Your task to perform on an android device: Is it going to rain this weekend? Image 0: 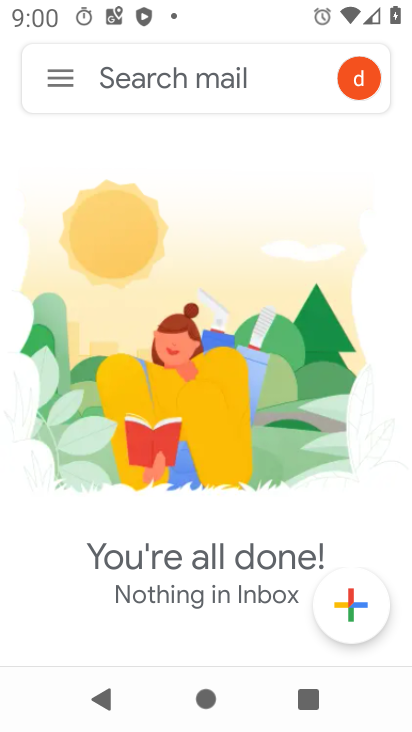
Step 0: press home button
Your task to perform on an android device: Is it going to rain this weekend? Image 1: 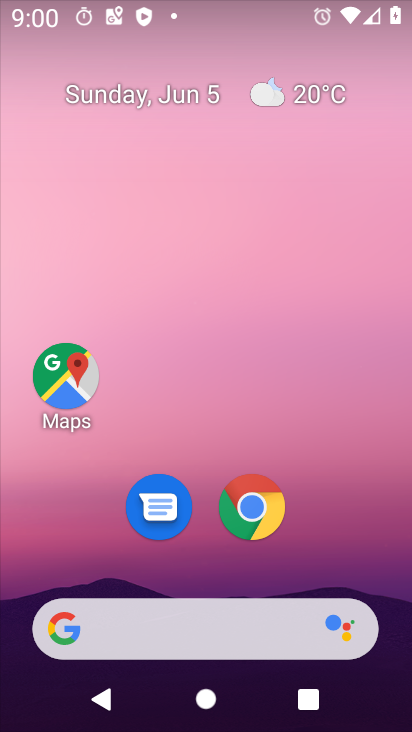
Step 1: drag from (339, 557) to (210, 1)
Your task to perform on an android device: Is it going to rain this weekend? Image 2: 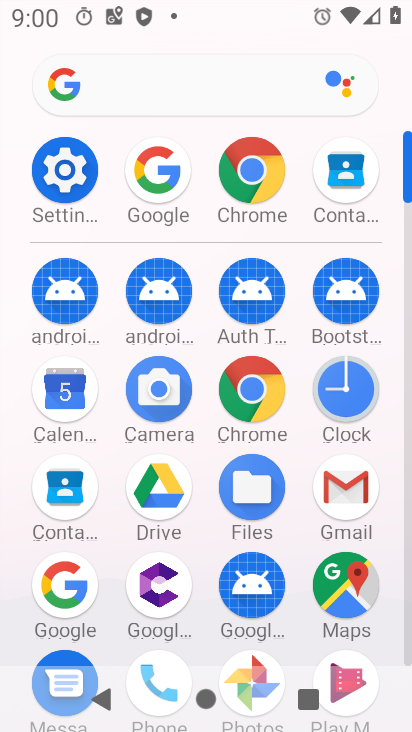
Step 2: drag from (18, 563) to (7, 204)
Your task to perform on an android device: Is it going to rain this weekend? Image 3: 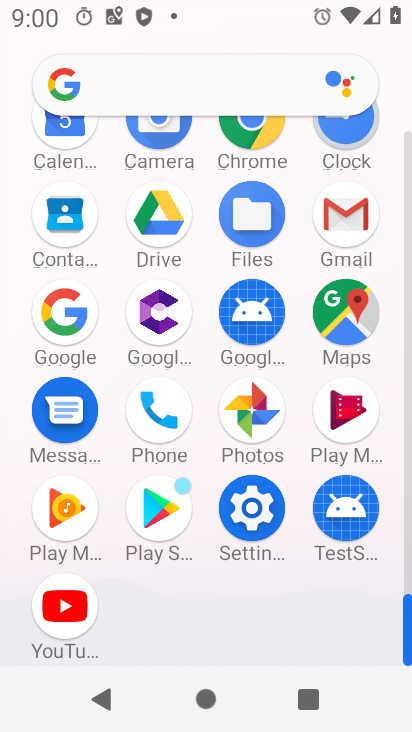
Step 3: drag from (18, 593) to (1, 195)
Your task to perform on an android device: Is it going to rain this weekend? Image 4: 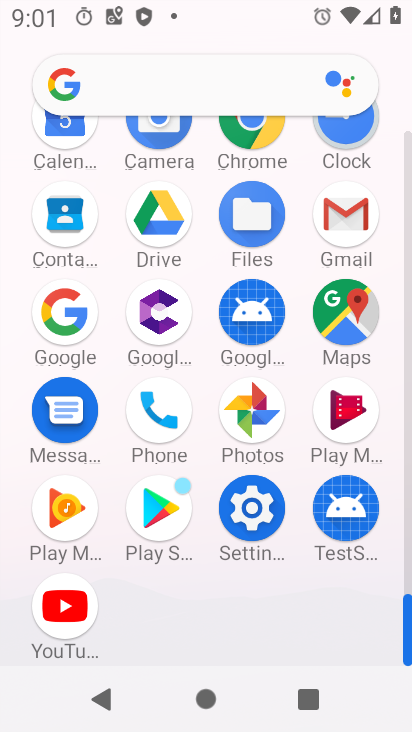
Step 4: drag from (9, 155) to (2, 375)
Your task to perform on an android device: Is it going to rain this weekend? Image 5: 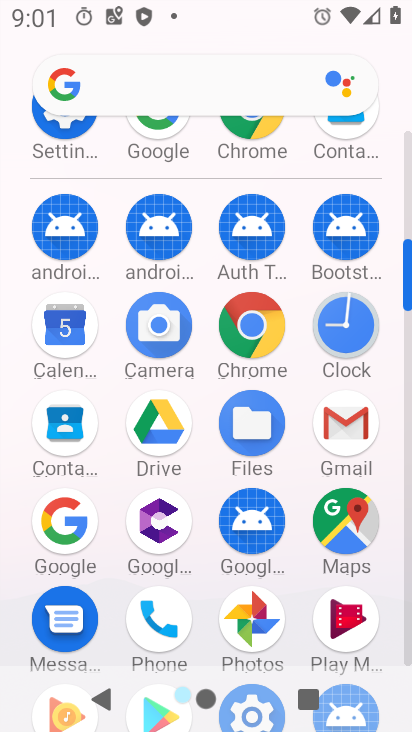
Step 5: click (252, 321)
Your task to perform on an android device: Is it going to rain this weekend? Image 6: 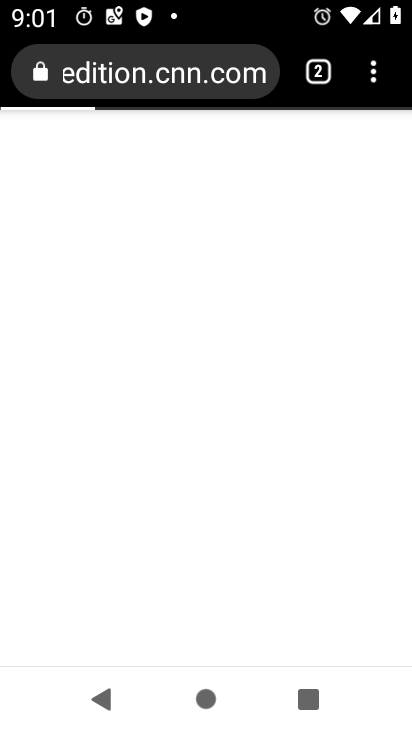
Step 6: click (143, 71)
Your task to perform on an android device: Is it going to rain this weekend? Image 7: 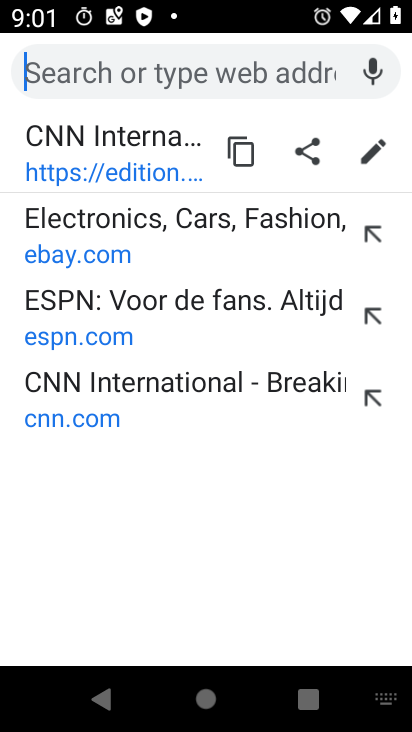
Step 7: type "Is it going to rain this weekend?"
Your task to perform on an android device: Is it going to rain this weekend? Image 8: 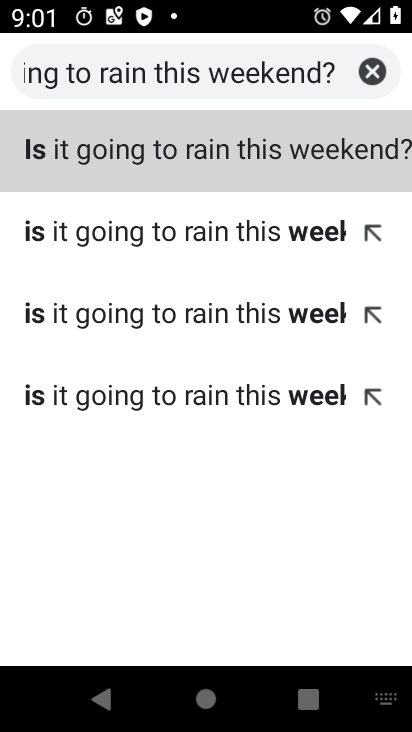
Step 8: click (166, 149)
Your task to perform on an android device: Is it going to rain this weekend? Image 9: 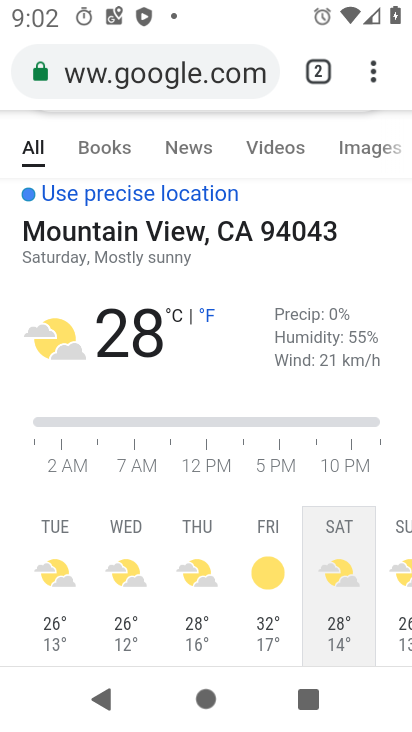
Step 9: task complete